Your task to perform on an android device: Go to display settings Image 0: 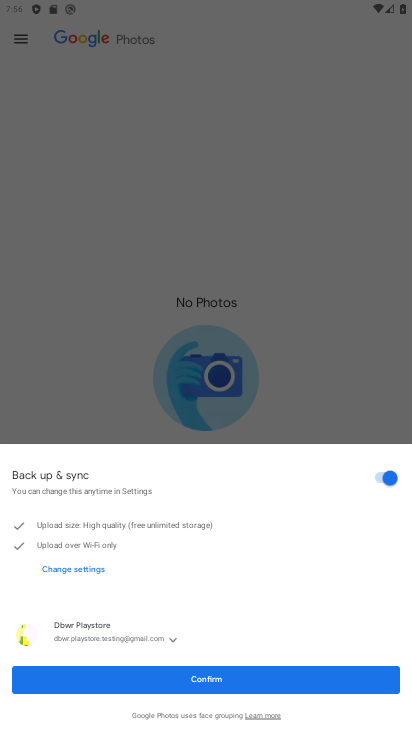
Step 0: press home button
Your task to perform on an android device: Go to display settings Image 1: 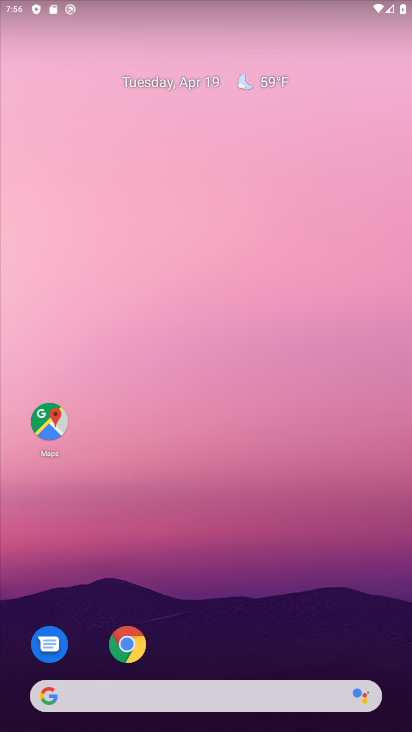
Step 1: drag from (258, 581) to (180, 228)
Your task to perform on an android device: Go to display settings Image 2: 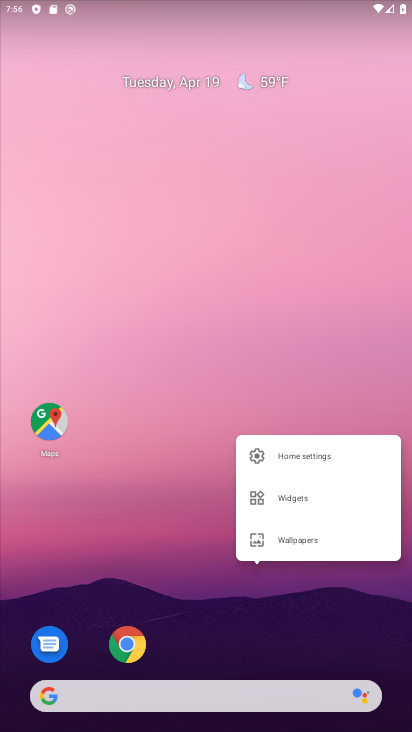
Step 2: drag from (206, 590) to (232, 228)
Your task to perform on an android device: Go to display settings Image 3: 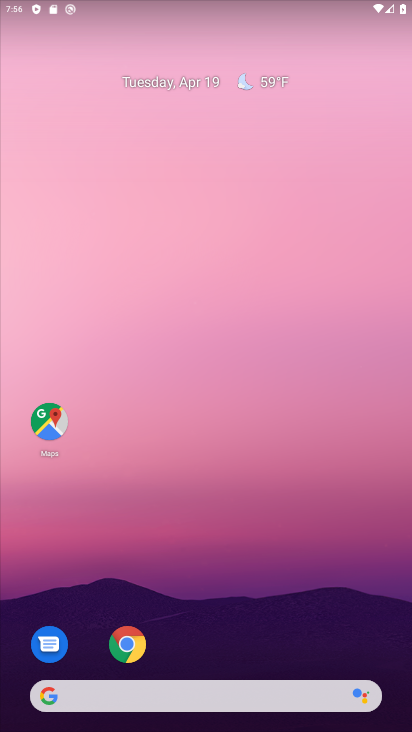
Step 3: drag from (282, 633) to (252, 123)
Your task to perform on an android device: Go to display settings Image 4: 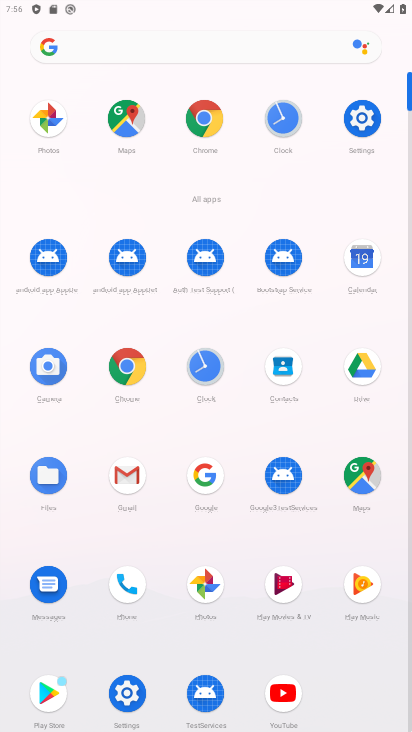
Step 4: click (366, 124)
Your task to perform on an android device: Go to display settings Image 5: 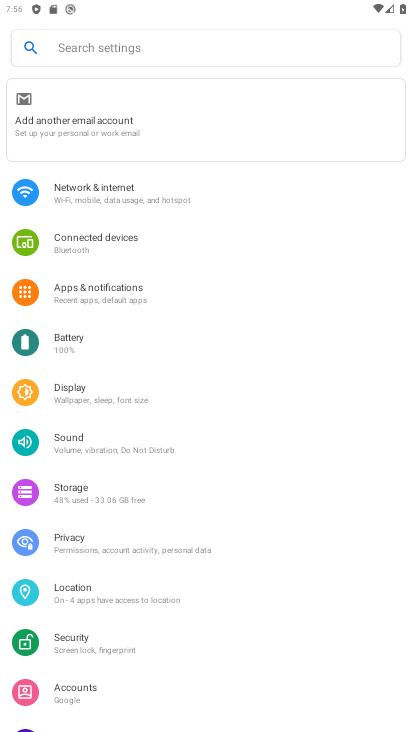
Step 5: click (98, 398)
Your task to perform on an android device: Go to display settings Image 6: 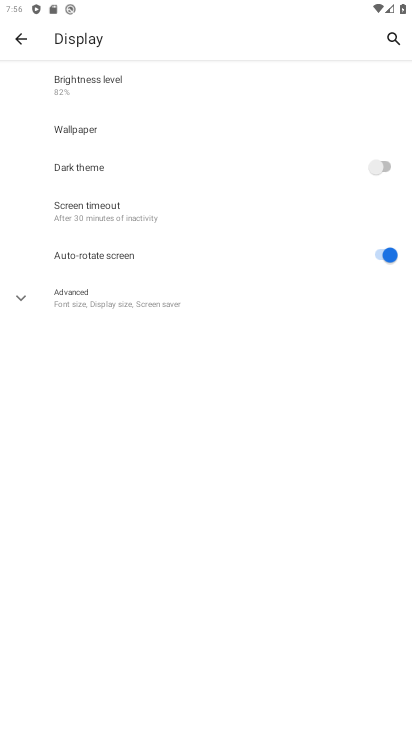
Step 6: task complete